Your task to perform on an android device: Go to display settings Image 0: 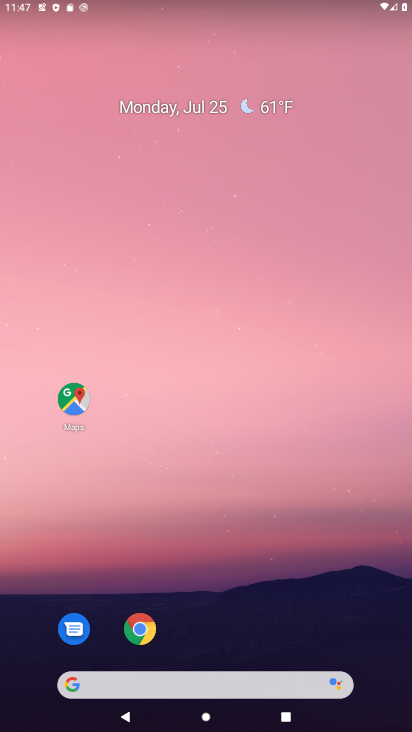
Step 0: drag from (208, 632) to (204, 143)
Your task to perform on an android device: Go to display settings Image 1: 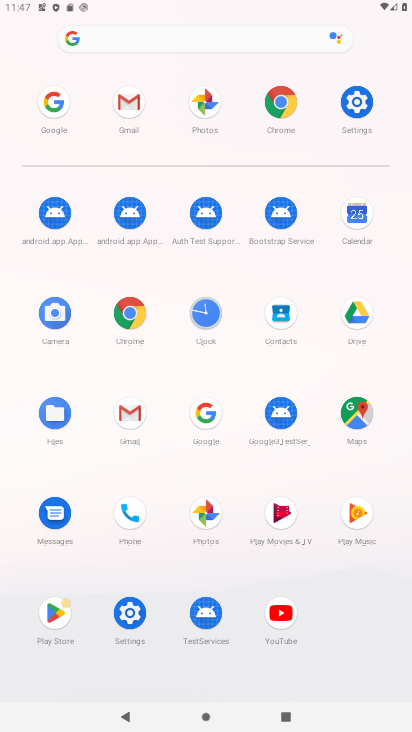
Step 1: click (358, 114)
Your task to perform on an android device: Go to display settings Image 2: 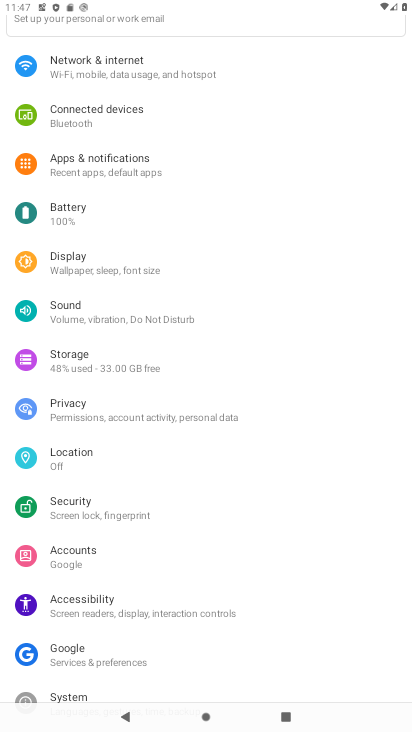
Step 2: click (115, 260)
Your task to perform on an android device: Go to display settings Image 3: 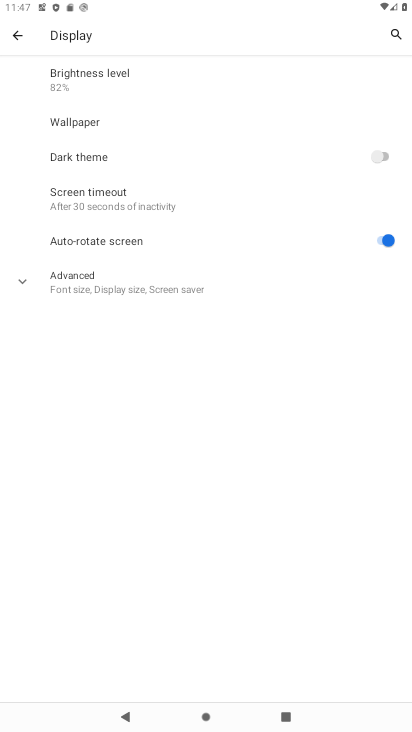
Step 3: task complete